Your task to perform on an android device: toggle show notifications on the lock screen Image 0: 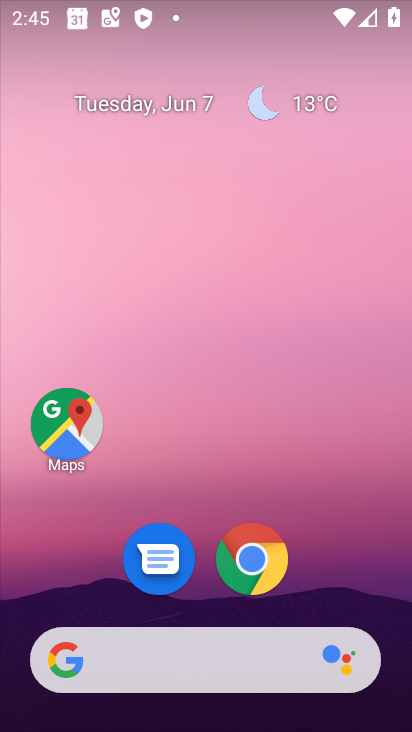
Step 0: drag from (342, 507) to (284, 1)
Your task to perform on an android device: toggle show notifications on the lock screen Image 1: 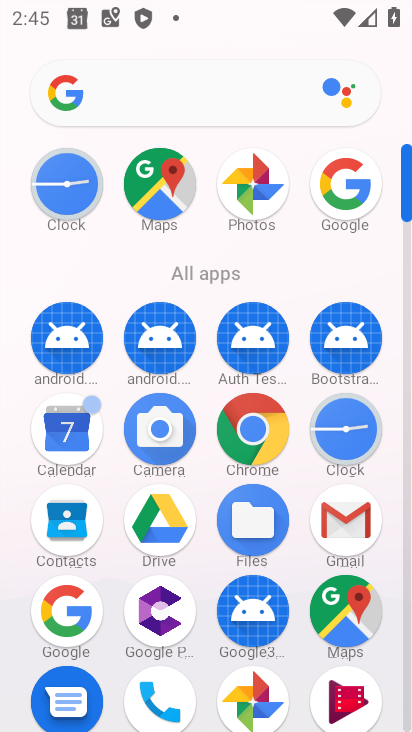
Step 1: drag from (289, 294) to (304, 57)
Your task to perform on an android device: toggle show notifications on the lock screen Image 2: 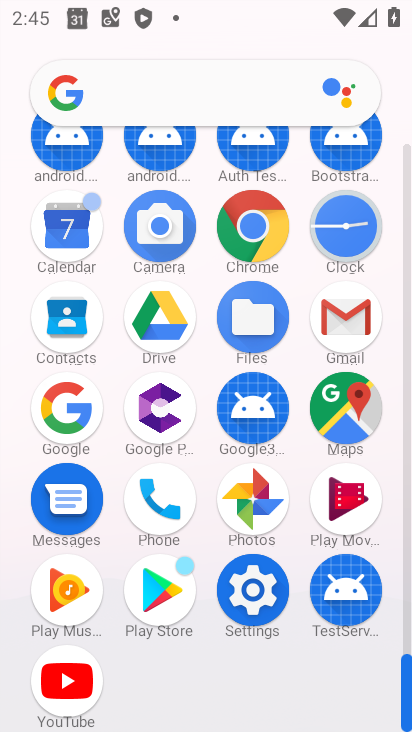
Step 2: click (251, 590)
Your task to perform on an android device: toggle show notifications on the lock screen Image 3: 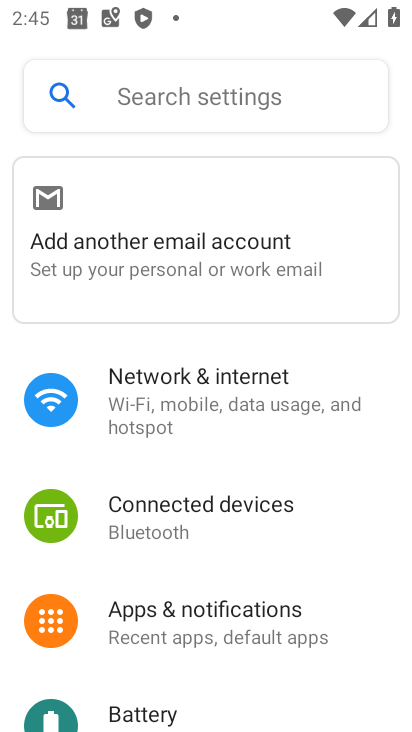
Step 3: click (219, 612)
Your task to perform on an android device: toggle show notifications on the lock screen Image 4: 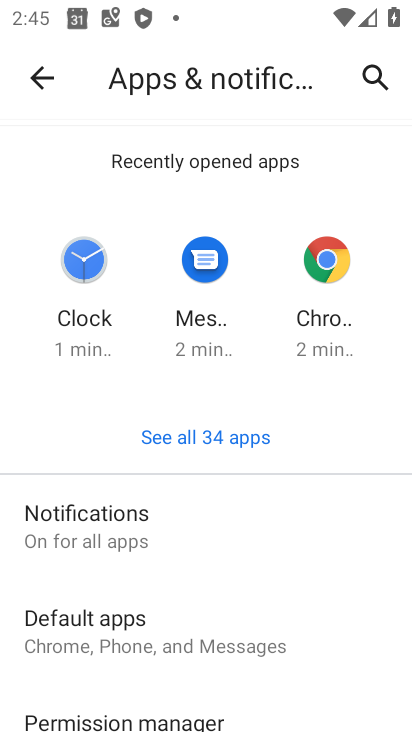
Step 4: click (118, 521)
Your task to perform on an android device: toggle show notifications on the lock screen Image 5: 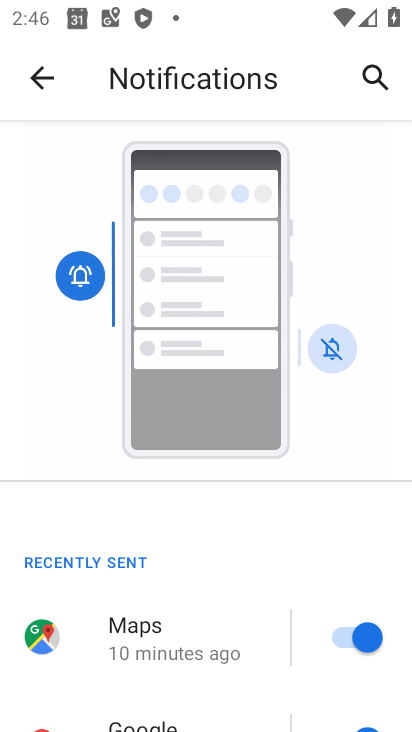
Step 5: drag from (233, 573) to (331, 268)
Your task to perform on an android device: toggle show notifications on the lock screen Image 6: 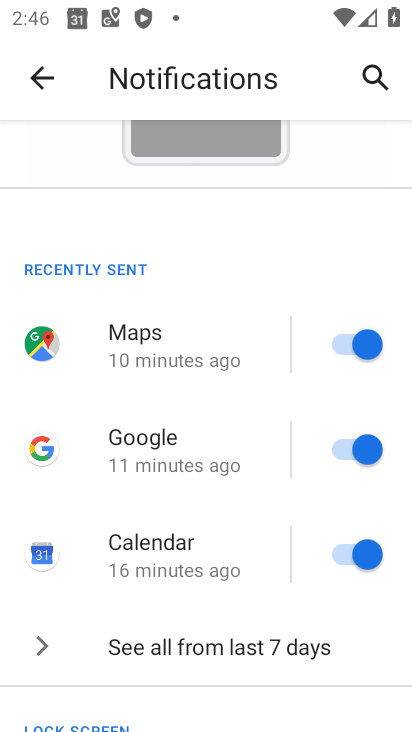
Step 6: drag from (190, 588) to (331, 315)
Your task to perform on an android device: toggle show notifications on the lock screen Image 7: 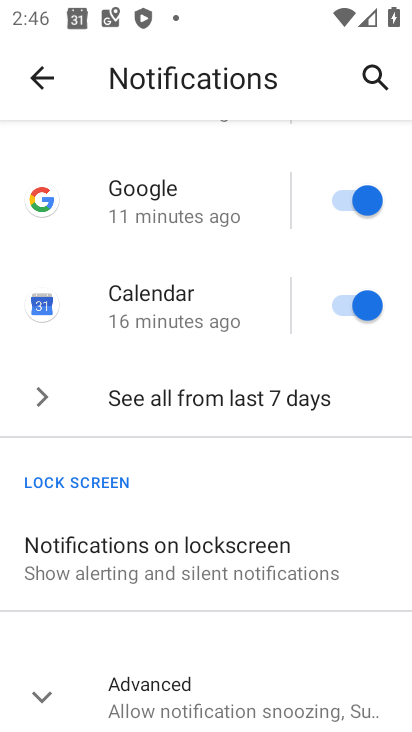
Step 7: click (228, 553)
Your task to perform on an android device: toggle show notifications on the lock screen Image 8: 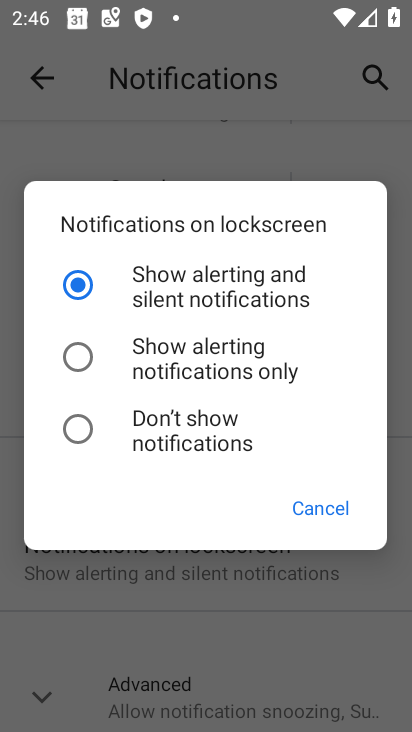
Step 8: click (72, 405)
Your task to perform on an android device: toggle show notifications on the lock screen Image 9: 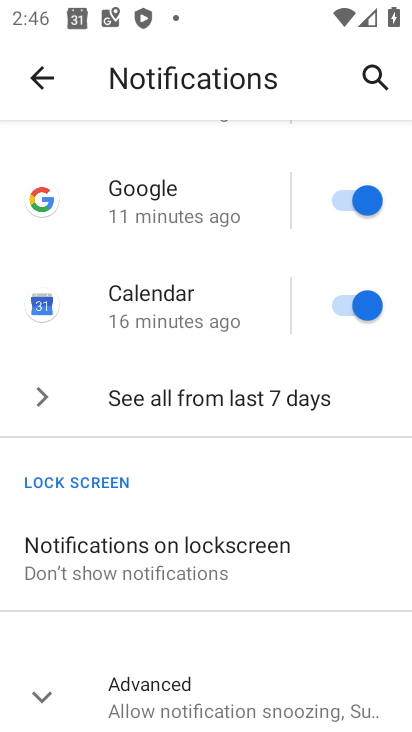
Step 9: task complete